Your task to perform on an android device: turn smart compose on in the gmail app Image 0: 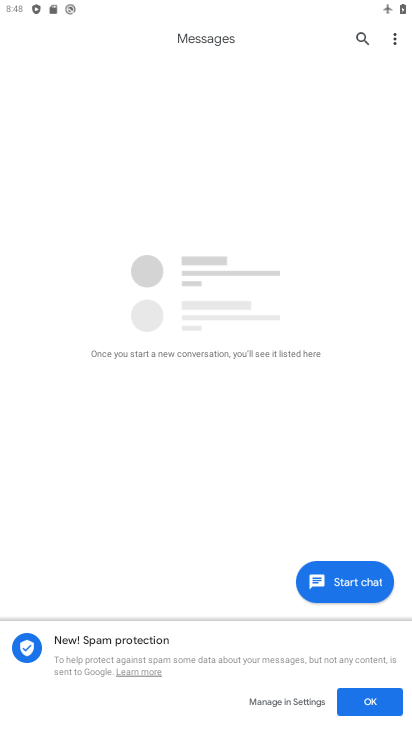
Step 0: drag from (219, 5) to (250, 539)
Your task to perform on an android device: turn smart compose on in the gmail app Image 1: 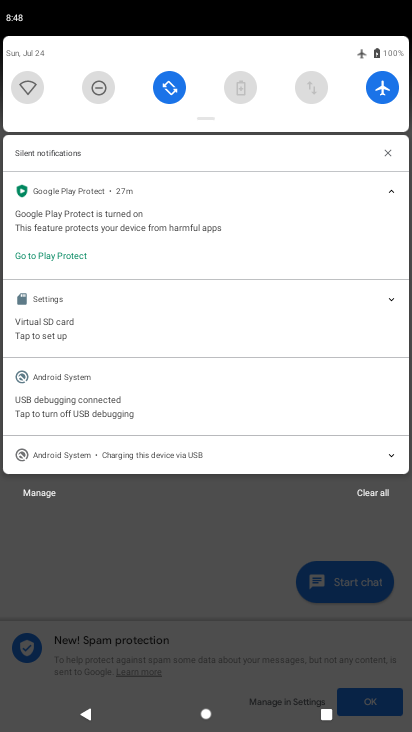
Step 1: press home button
Your task to perform on an android device: turn smart compose on in the gmail app Image 2: 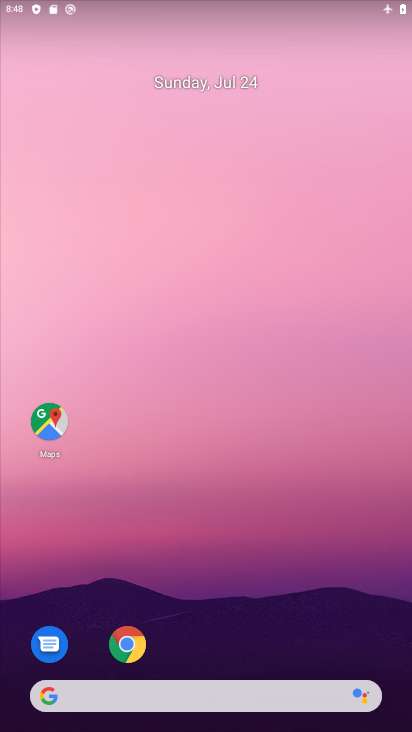
Step 2: drag from (233, 618) to (181, 10)
Your task to perform on an android device: turn smart compose on in the gmail app Image 3: 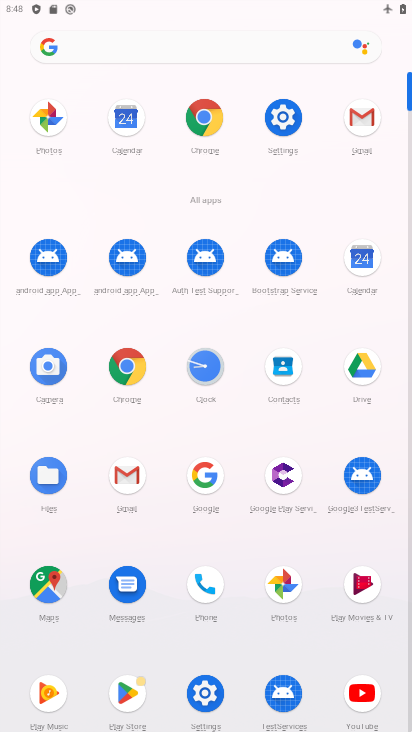
Step 3: click (121, 477)
Your task to perform on an android device: turn smart compose on in the gmail app Image 4: 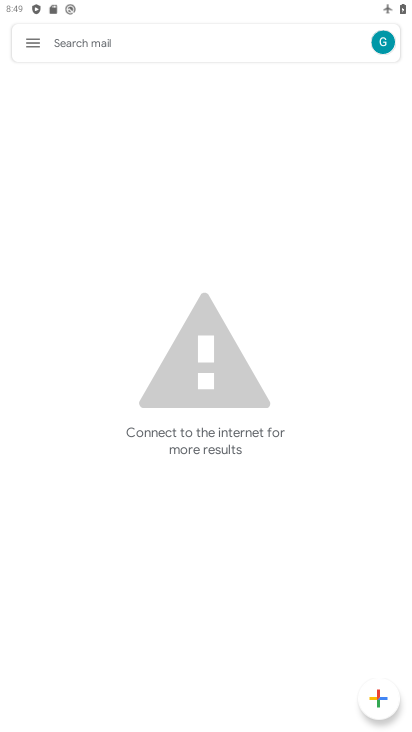
Step 4: click (29, 38)
Your task to perform on an android device: turn smart compose on in the gmail app Image 5: 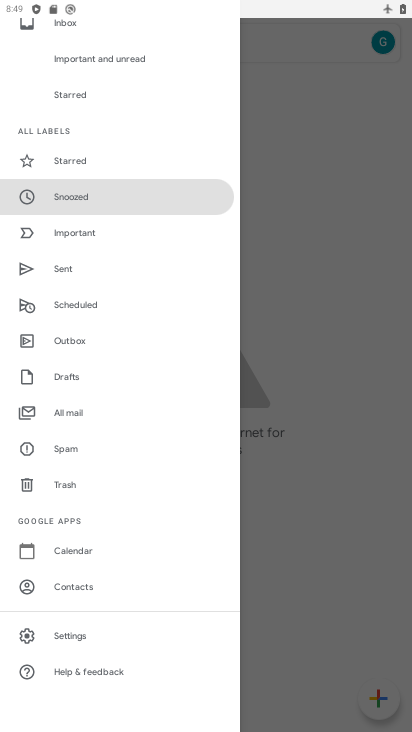
Step 5: click (57, 634)
Your task to perform on an android device: turn smart compose on in the gmail app Image 6: 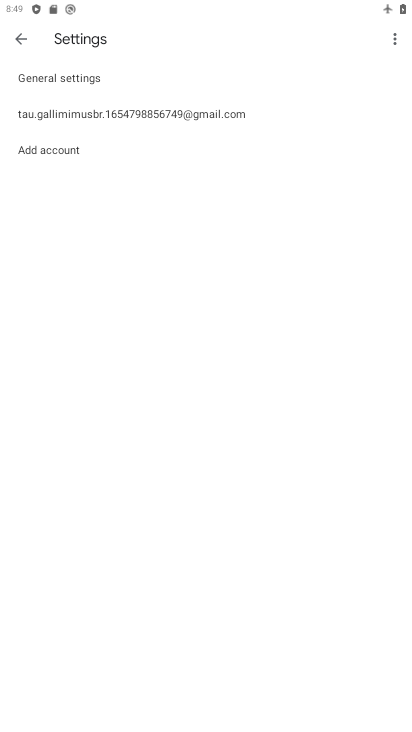
Step 6: click (114, 118)
Your task to perform on an android device: turn smart compose on in the gmail app Image 7: 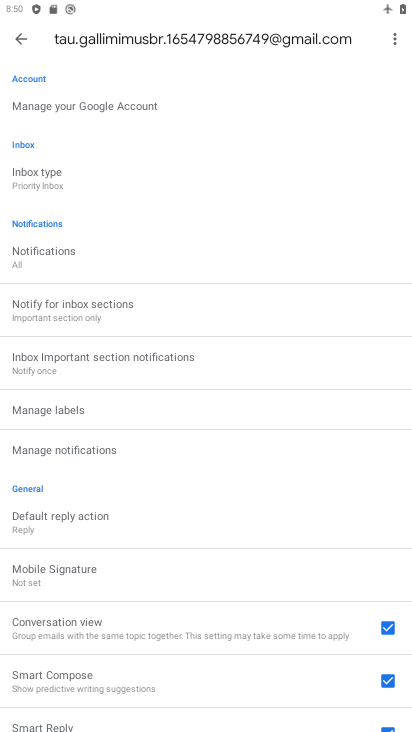
Step 7: task complete